Your task to perform on an android device: turn off javascript in the chrome app Image 0: 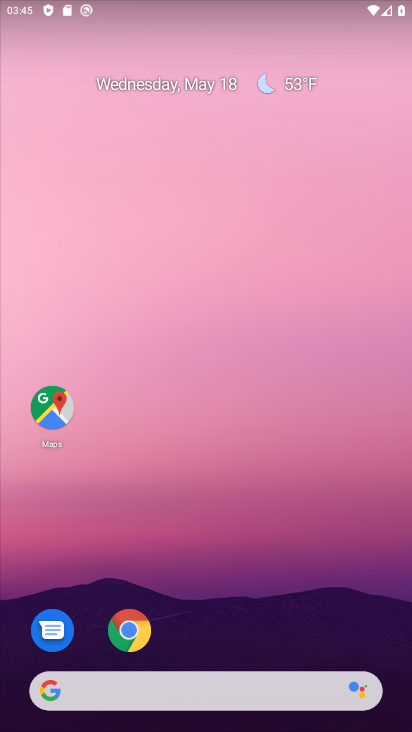
Step 0: click (132, 628)
Your task to perform on an android device: turn off javascript in the chrome app Image 1: 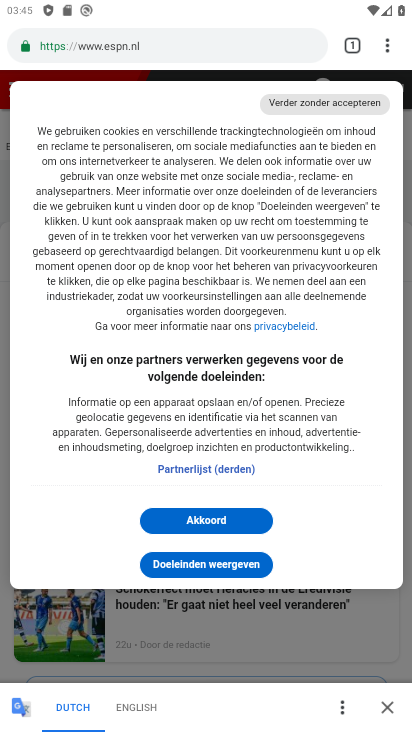
Step 1: click (389, 50)
Your task to perform on an android device: turn off javascript in the chrome app Image 2: 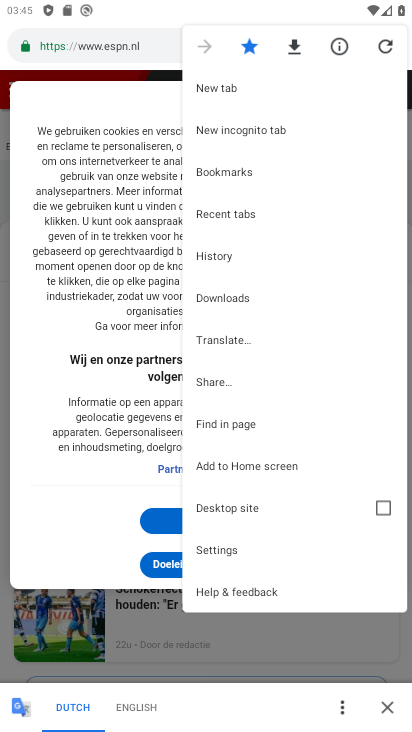
Step 2: click (226, 548)
Your task to perform on an android device: turn off javascript in the chrome app Image 3: 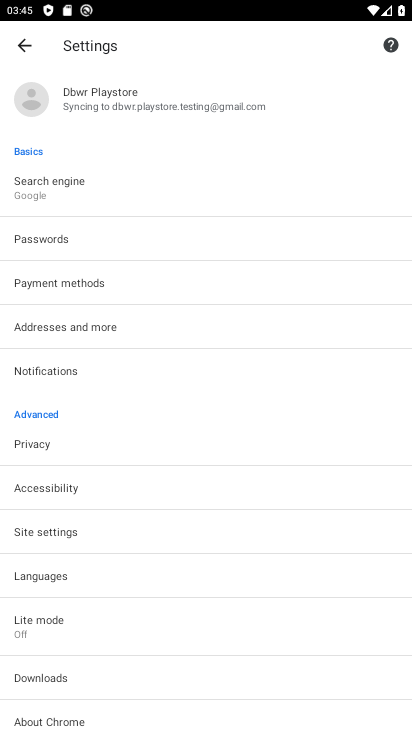
Step 3: click (50, 531)
Your task to perform on an android device: turn off javascript in the chrome app Image 4: 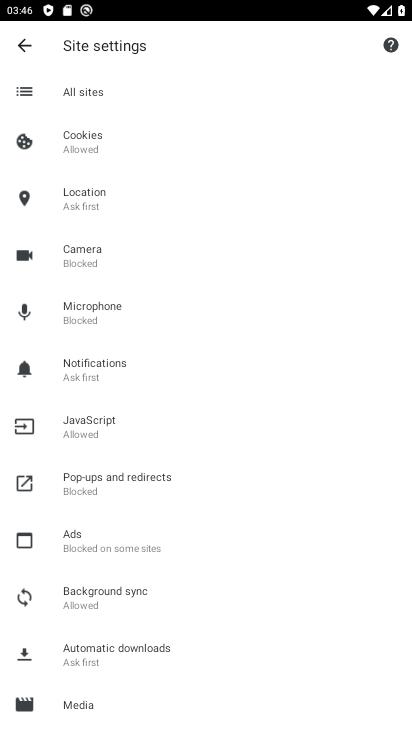
Step 4: click (77, 427)
Your task to perform on an android device: turn off javascript in the chrome app Image 5: 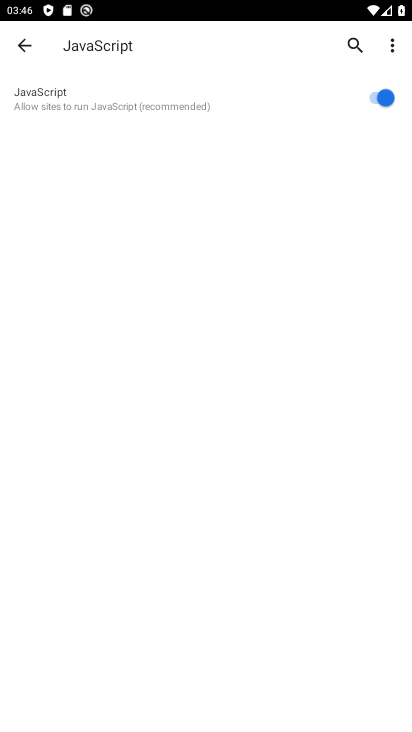
Step 5: click (372, 96)
Your task to perform on an android device: turn off javascript in the chrome app Image 6: 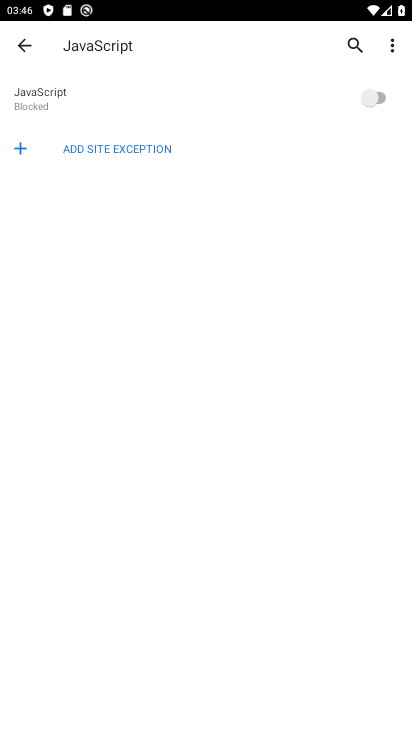
Step 6: task complete